Your task to perform on an android device: open sync settings in chrome Image 0: 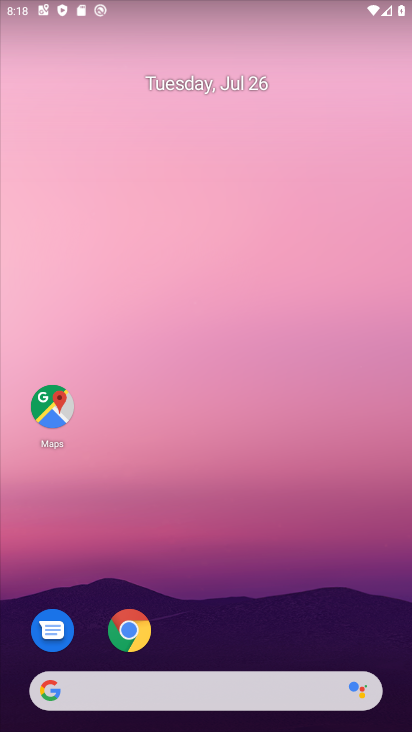
Step 0: drag from (252, 648) to (268, 110)
Your task to perform on an android device: open sync settings in chrome Image 1: 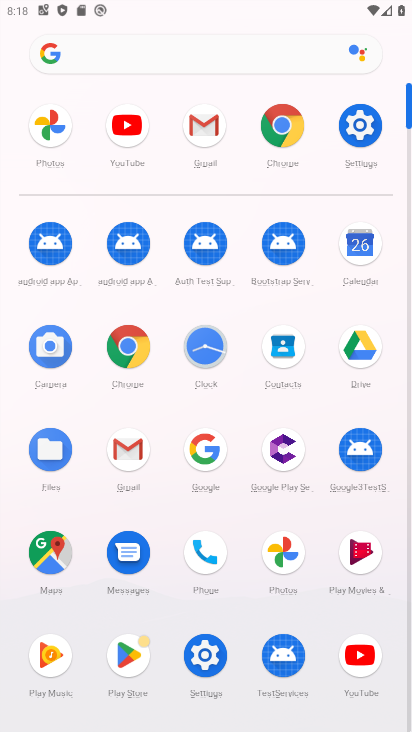
Step 1: click (276, 148)
Your task to perform on an android device: open sync settings in chrome Image 2: 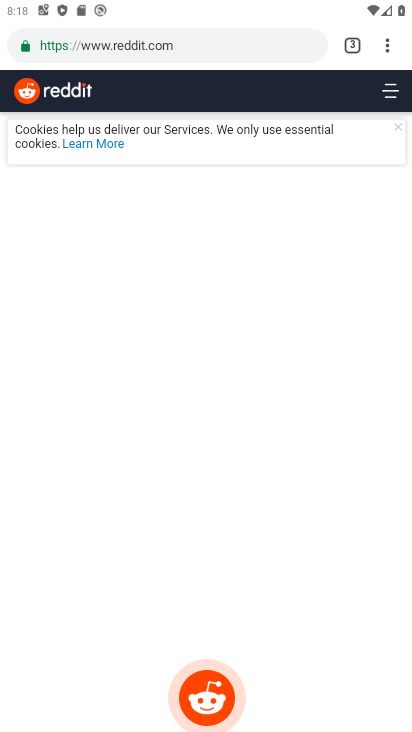
Step 2: click (384, 52)
Your task to perform on an android device: open sync settings in chrome Image 3: 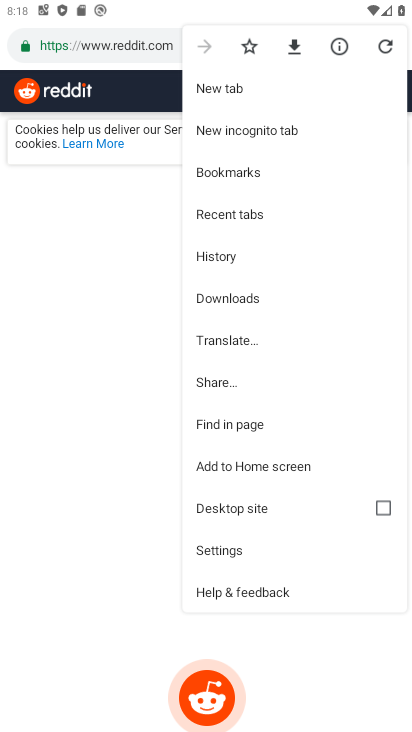
Step 3: click (223, 558)
Your task to perform on an android device: open sync settings in chrome Image 4: 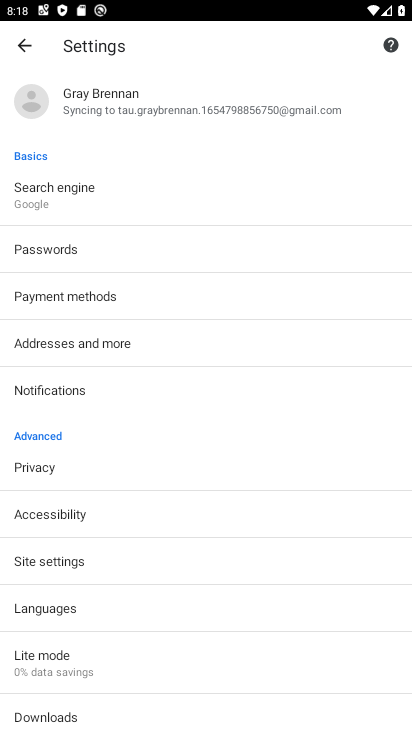
Step 4: click (90, 568)
Your task to perform on an android device: open sync settings in chrome Image 5: 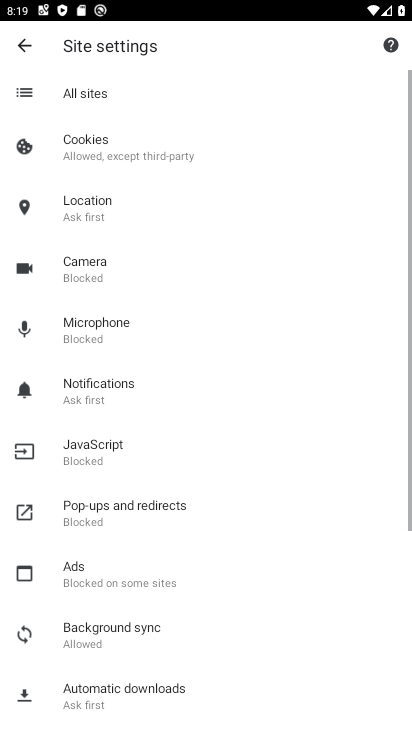
Step 5: task complete